Your task to perform on an android device: open sync settings in chrome Image 0: 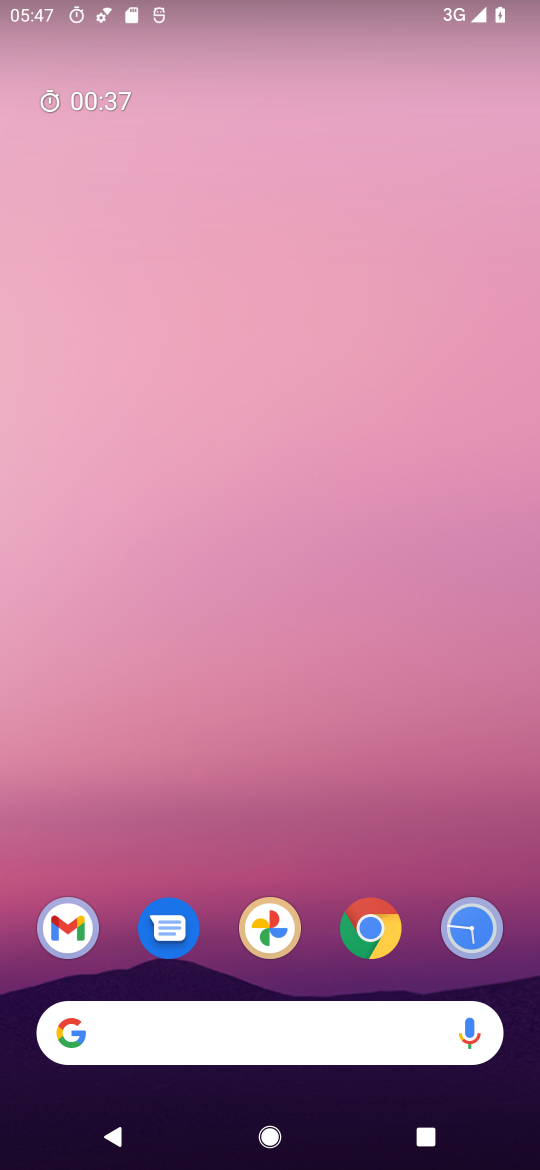
Step 0: click (363, 940)
Your task to perform on an android device: open sync settings in chrome Image 1: 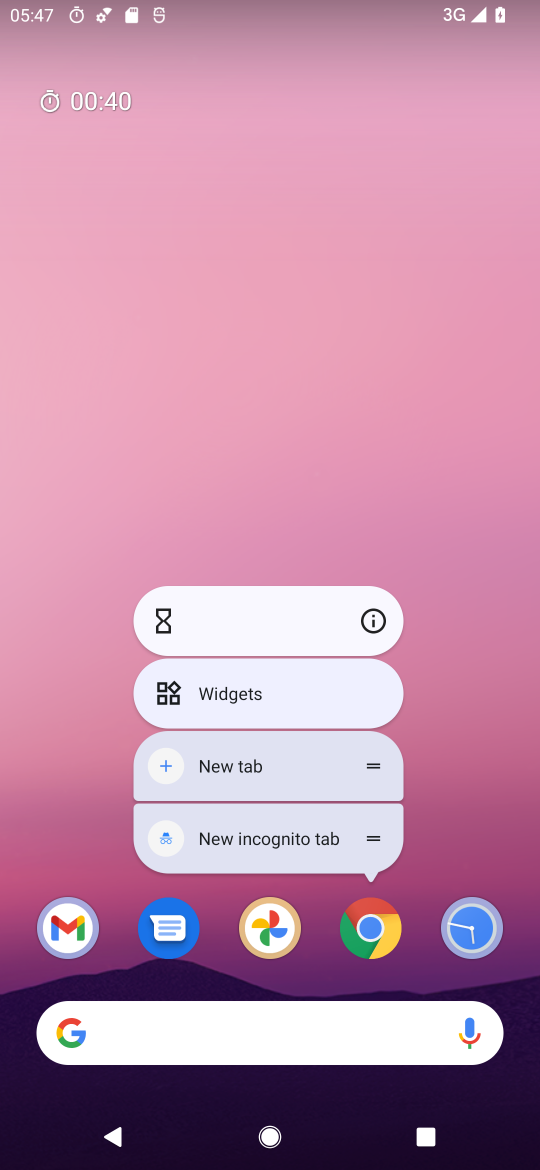
Step 1: click (386, 931)
Your task to perform on an android device: open sync settings in chrome Image 2: 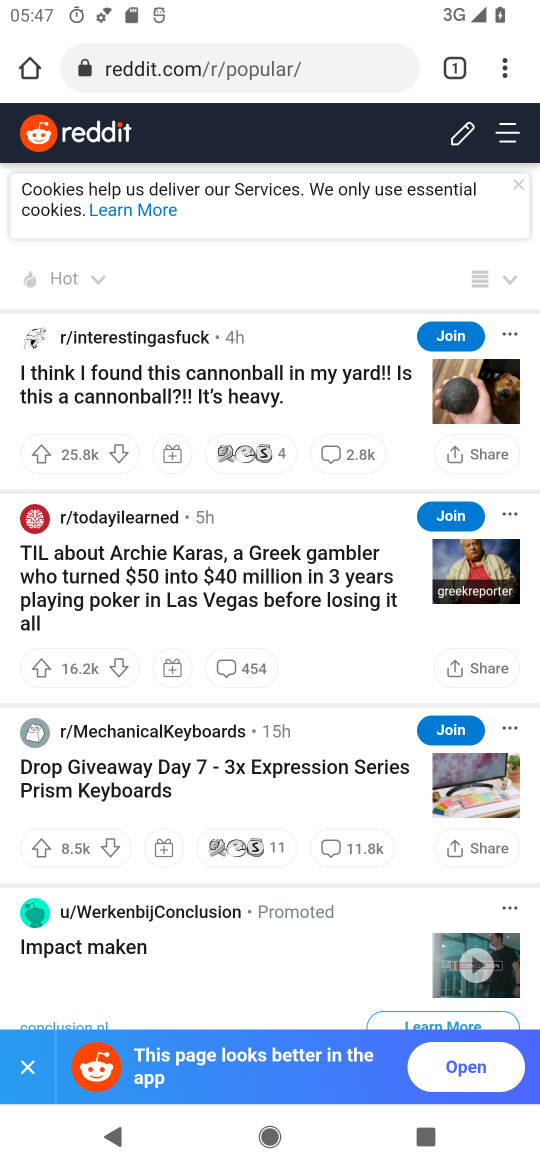
Step 2: click (504, 66)
Your task to perform on an android device: open sync settings in chrome Image 3: 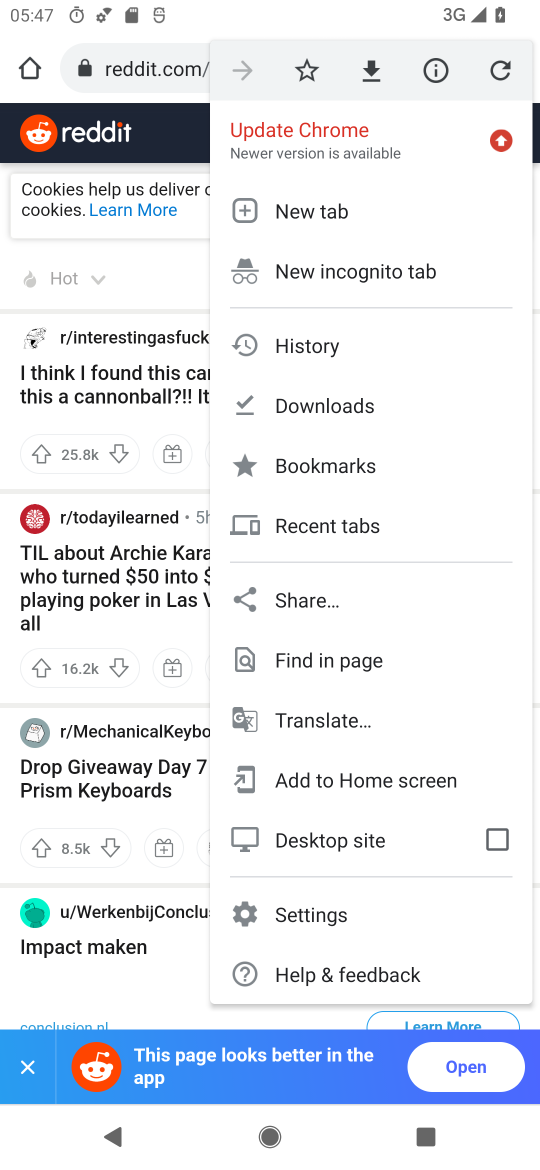
Step 3: click (310, 918)
Your task to perform on an android device: open sync settings in chrome Image 4: 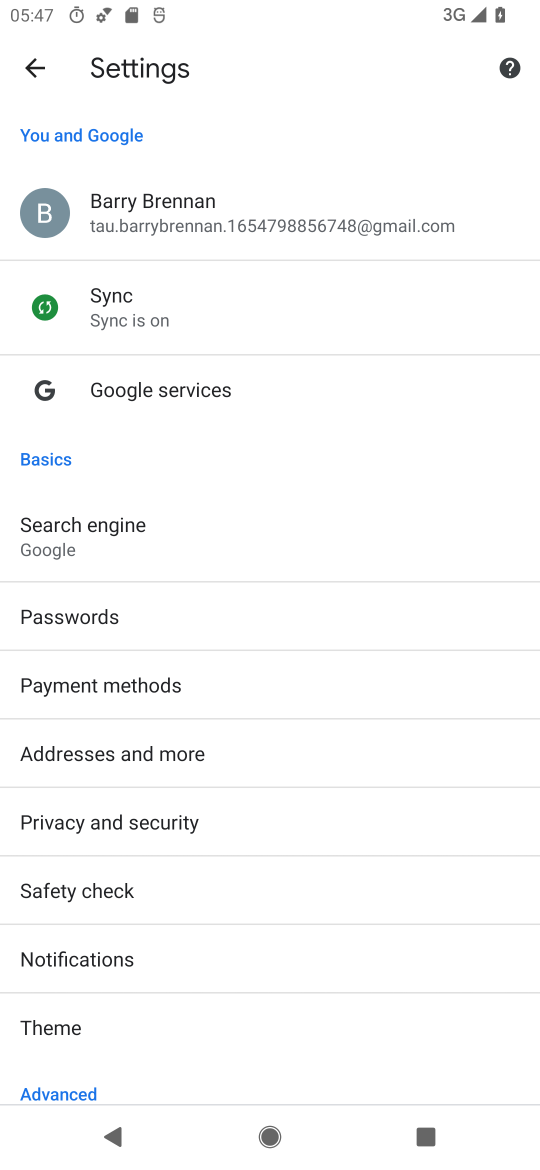
Step 4: click (210, 312)
Your task to perform on an android device: open sync settings in chrome Image 5: 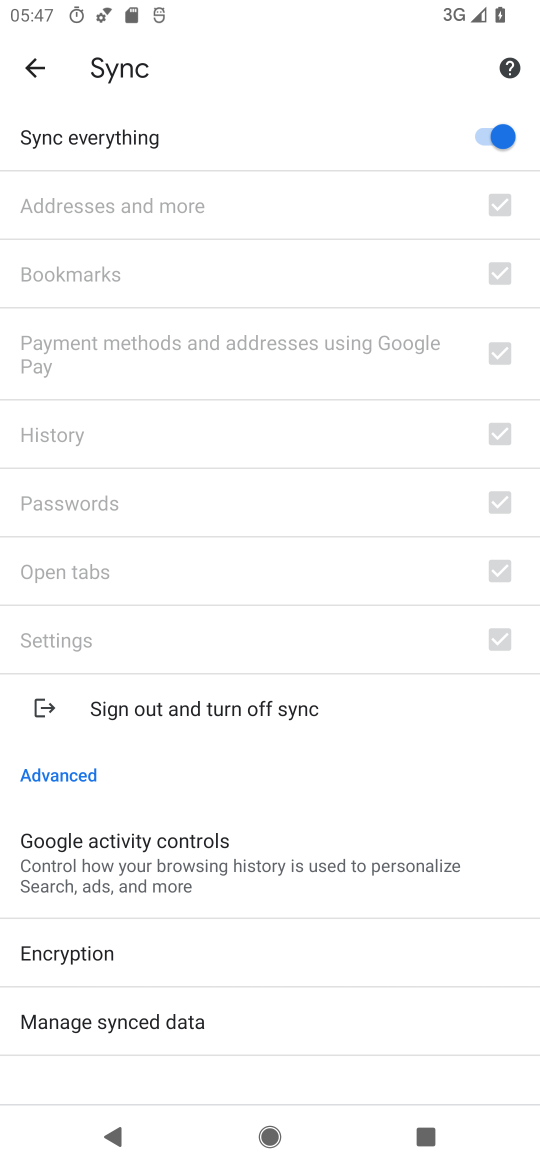
Step 5: task complete